Your task to perform on an android device: Search for seafood restaurants on Google Maps Image 0: 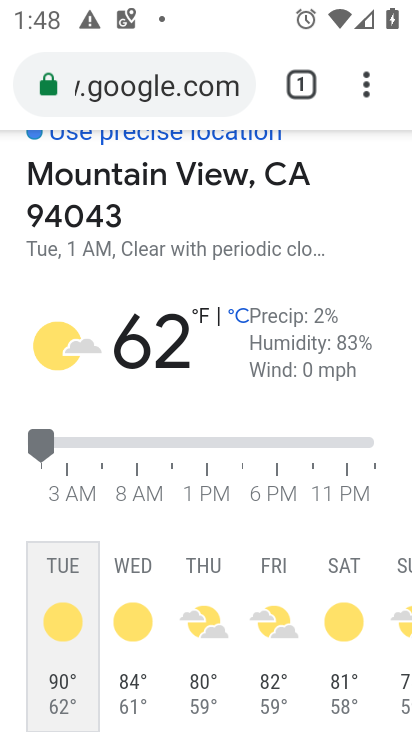
Step 0: press home button
Your task to perform on an android device: Search for seafood restaurants on Google Maps Image 1: 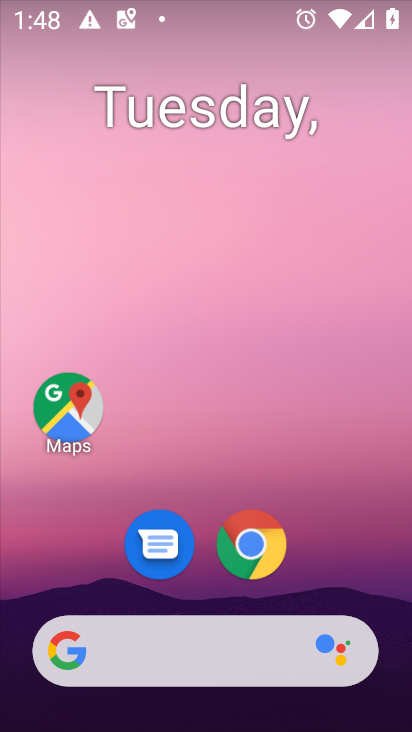
Step 1: drag from (292, 282) to (287, 13)
Your task to perform on an android device: Search for seafood restaurants on Google Maps Image 2: 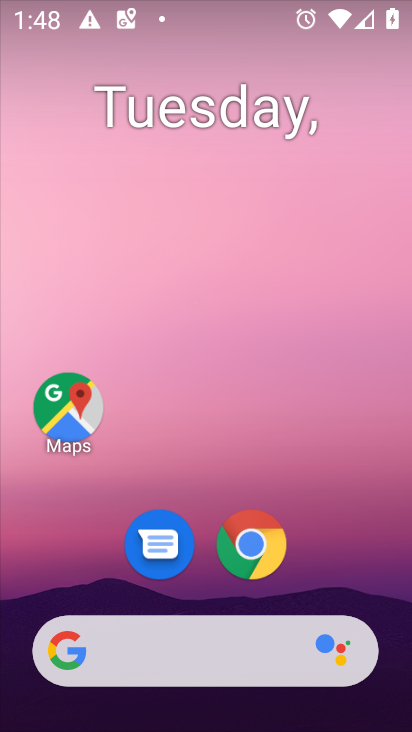
Step 2: drag from (320, 587) to (334, 36)
Your task to perform on an android device: Search for seafood restaurants on Google Maps Image 3: 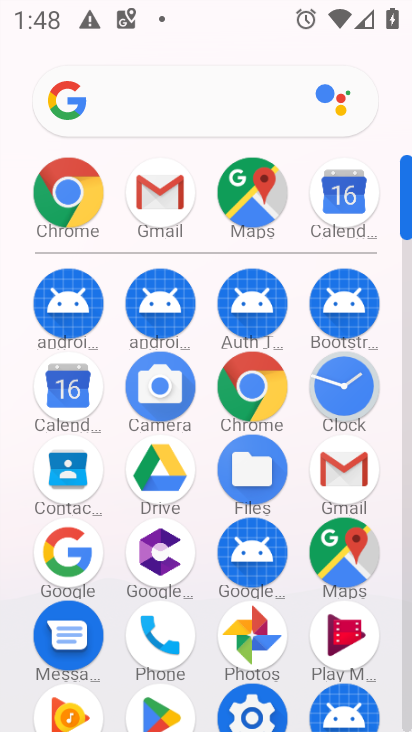
Step 3: click (343, 559)
Your task to perform on an android device: Search for seafood restaurants on Google Maps Image 4: 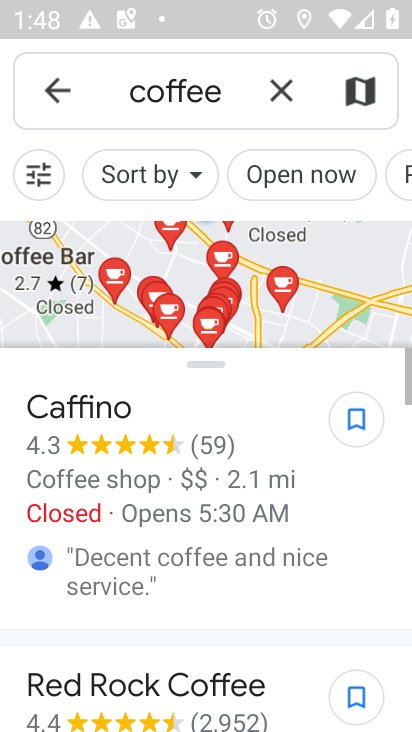
Step 4: click (200, 87)
Your task to perform on an android device: Search for seafood restaurants on Google Maps Image 5: 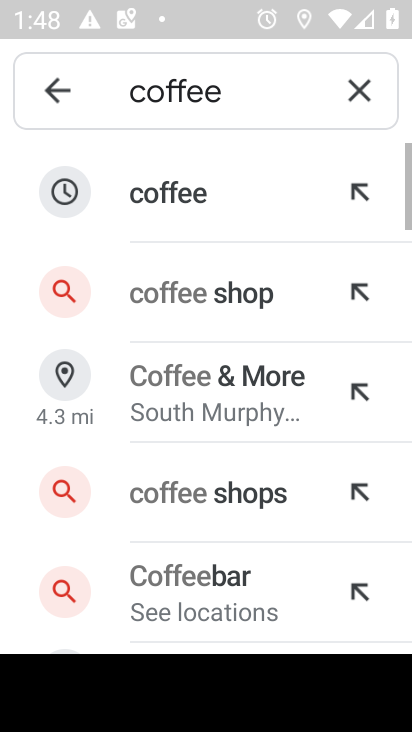
Step 5: click (360, 102)
Your task to perform on an android device: Search for seafood restaurants on Google Maps Image 6: 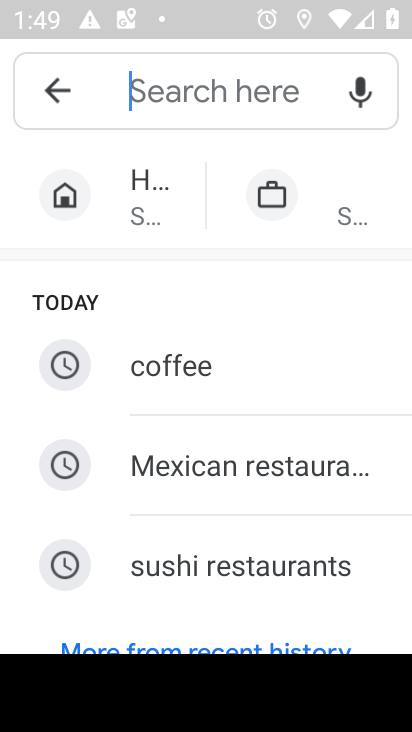
Step 6: type "seafood restaurants"
Your task to perform on an android device: Search for seafood restaurants on Google Maps Image 7: 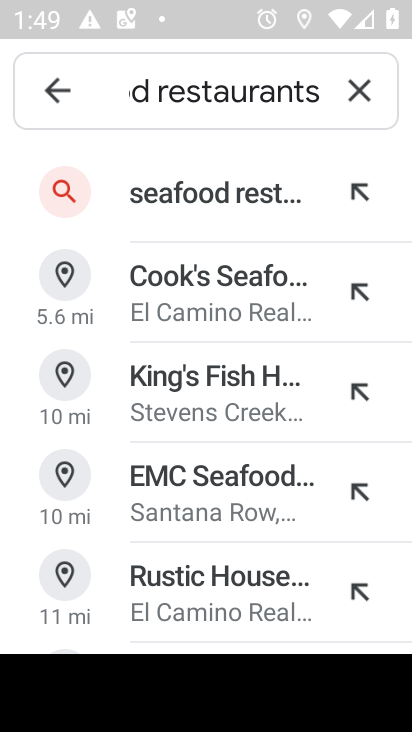
Step 7: press enter
Your task to perform on an android device: Search for seafood restaurants on Google Maps Image 8: 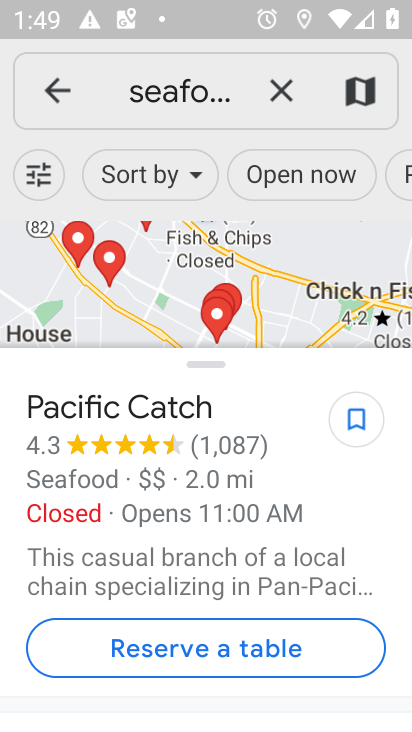
Step 8: task complete